Your task to perform on an android device: Search for top rated burger restaurants on Google Maps Image 0: 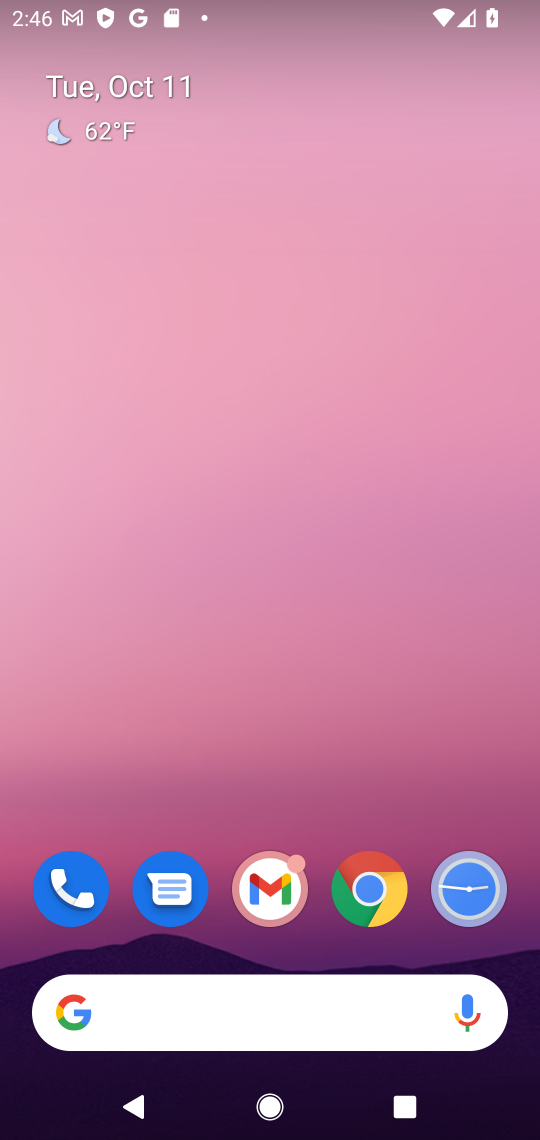
Step 0: drag from (345, 969) to (354, 470)
Your task to perform on an android device: Search for top rated burger restaurants on Google Maps Image 1: 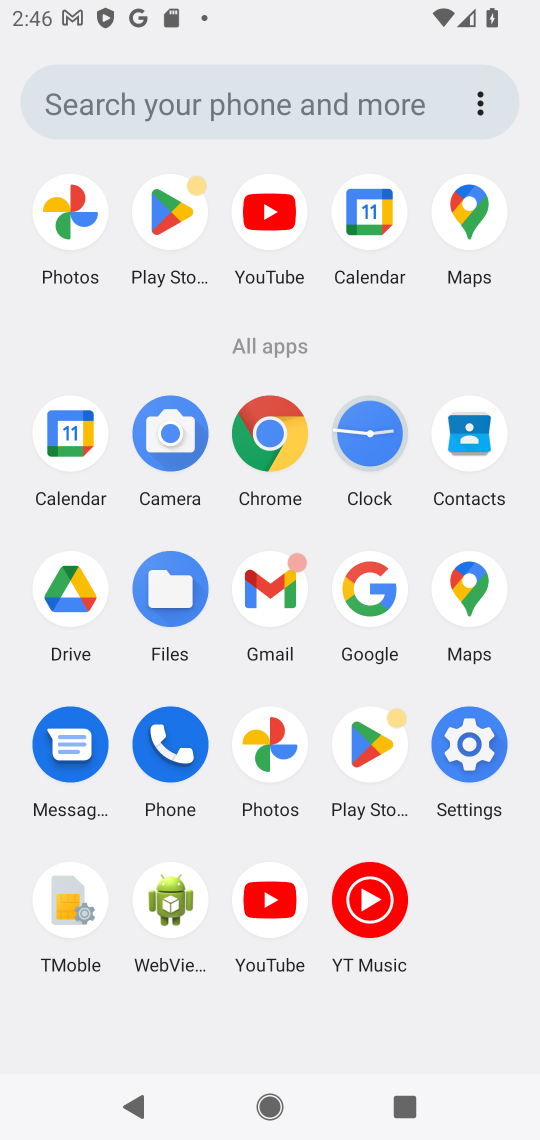
Step 1: click (465, 576)
Your task to perform on an android device: Search for top rated burger restaurants on Google Maps Image 2: 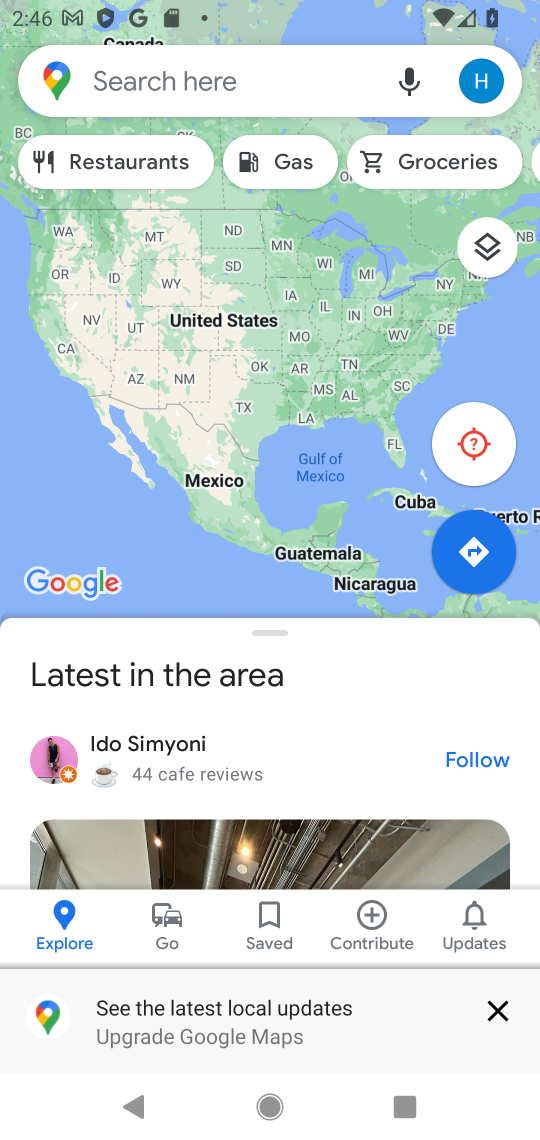
Step 2: click (256, 81)
Your task to perform on an android device: Search for top rated burger restaurants on Google Maps Image 3: 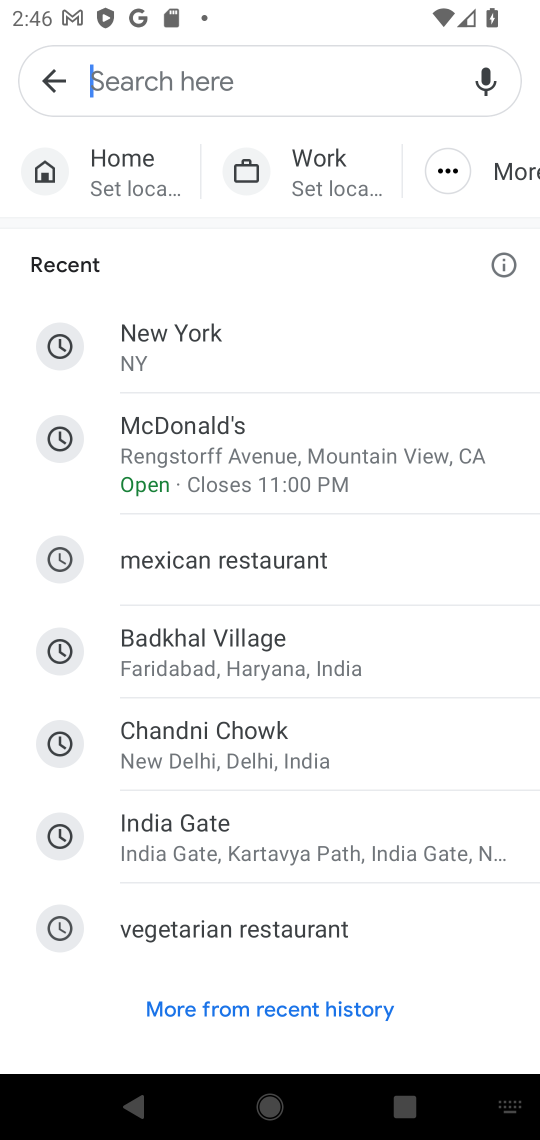
Step 3: type " burger restaurants "
Your task to perform on an android device: Search for top rated burger restaurants on Google Maps Image 4: 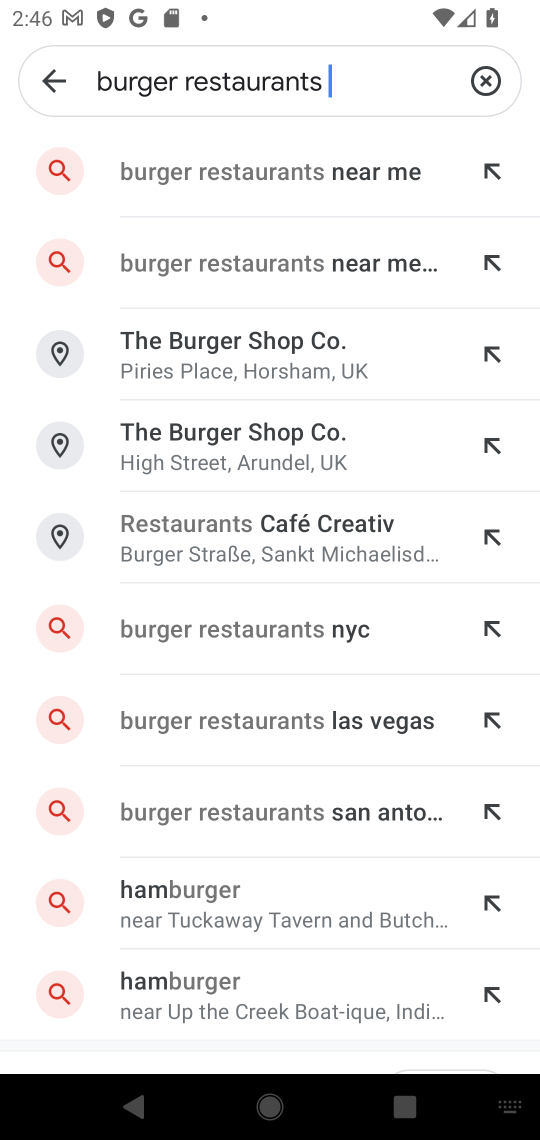
Step 4: click (232, 164)
Your task to perform on an android device: Search for top rated burger restaurants on Google Maps Image 5: 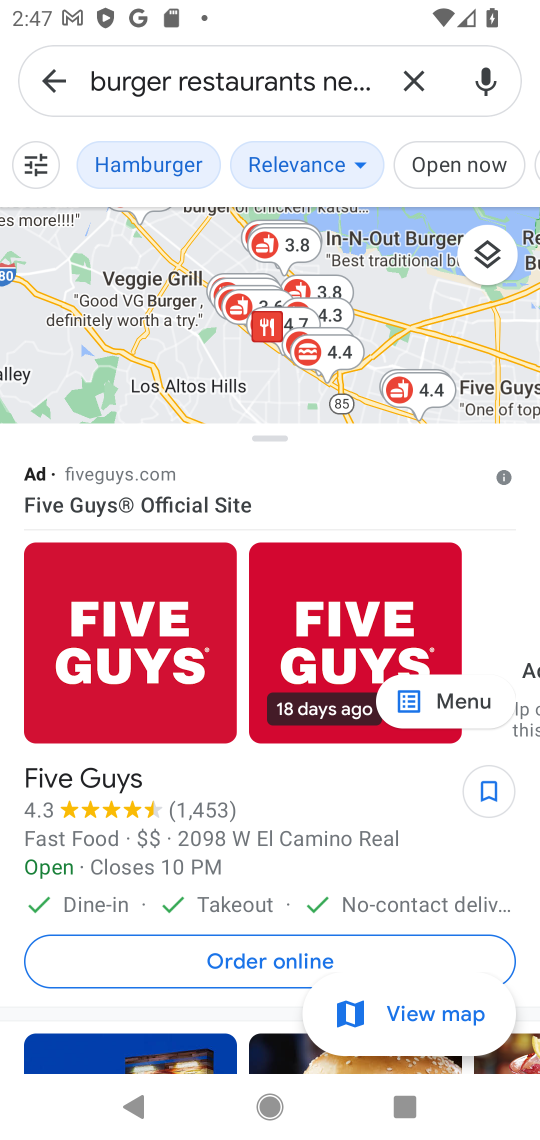
Step 5: task complete